Your task to perform on an android device: Set the phone to "Do not disturb". Image 0: 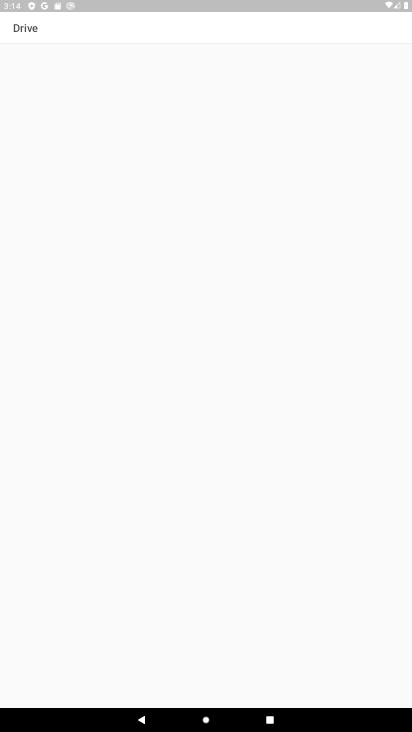
Step 0: drag from (175, 25) to (165, 700)
Your task to perform on an android device: Set the phone to "Do not disturb". Image 1: 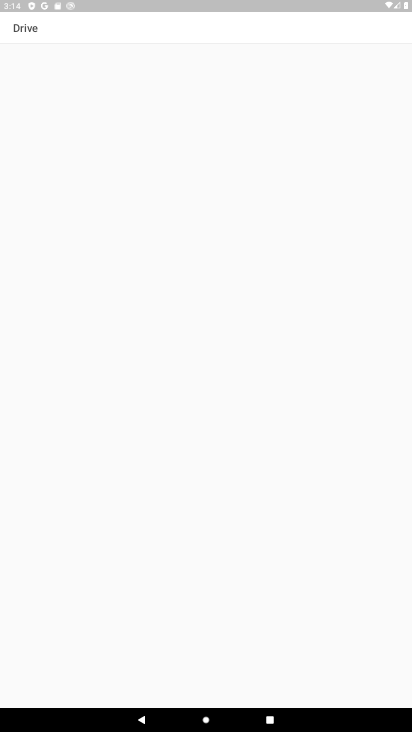
Step 1: press home button
Your task to perform on an android device: Set the phone to "Do not disturb". Image 2: 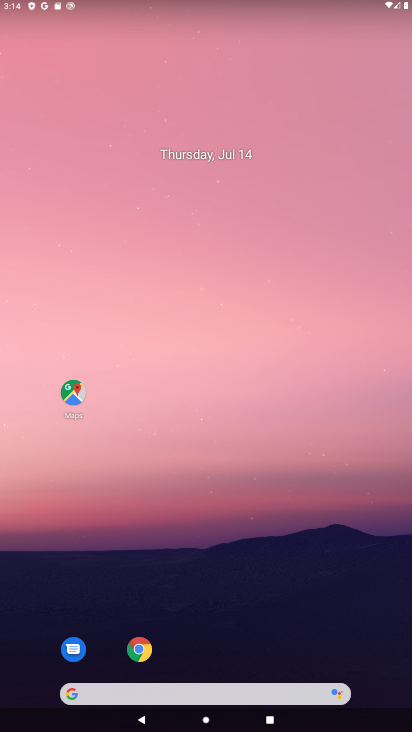
Step 2: click (153, 483)
Your task to perform on an android device: Set the phone to "Do not disturb". Image 3: 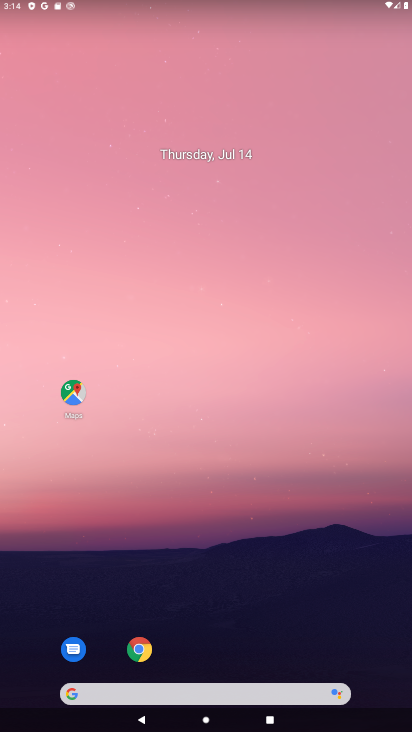
Step 3: drag from (142, 0) to (139, 55)
Your task to perform on an android device: Set the phone to "Do not disturb". Image 4: 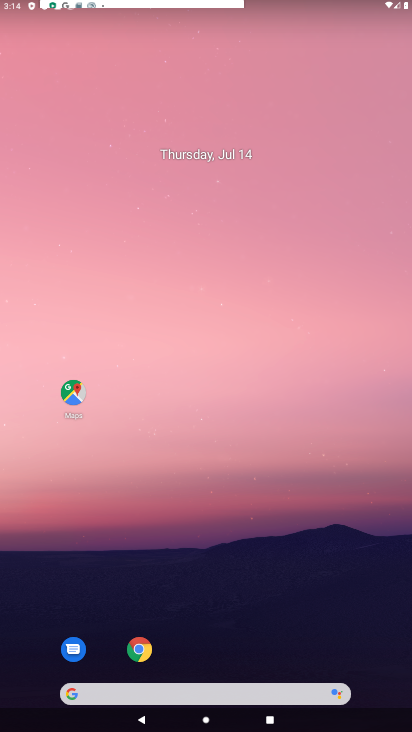
Step 4: drag from (138, 7) to (141, 465)
Your task to perform on an android device: Set the phone to "Do not disturb". Image 5: 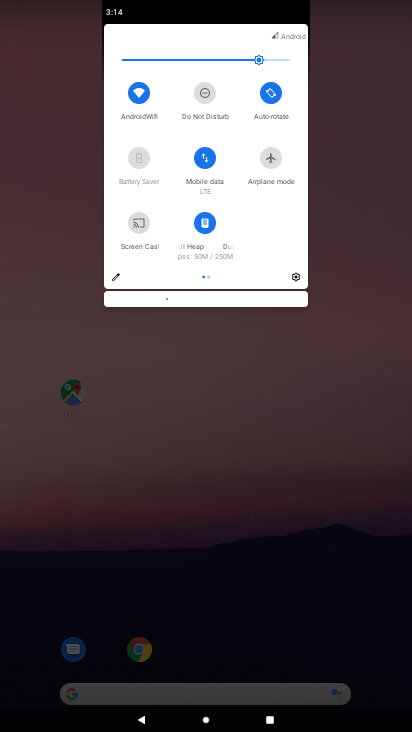
Step 5: click (196, 101)
Your task to perform on an android device: Set the phone to "Do not disturb". Image 6: 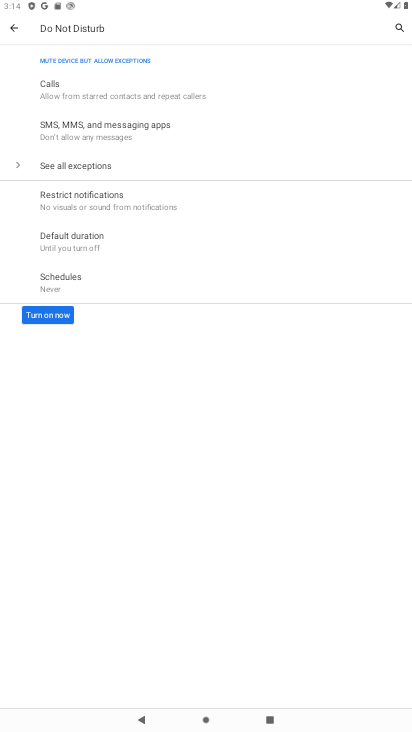
Step 6: click (55, 316)
Your task to perform on an android device: Set the phone to "Do not disturb". Image 7: 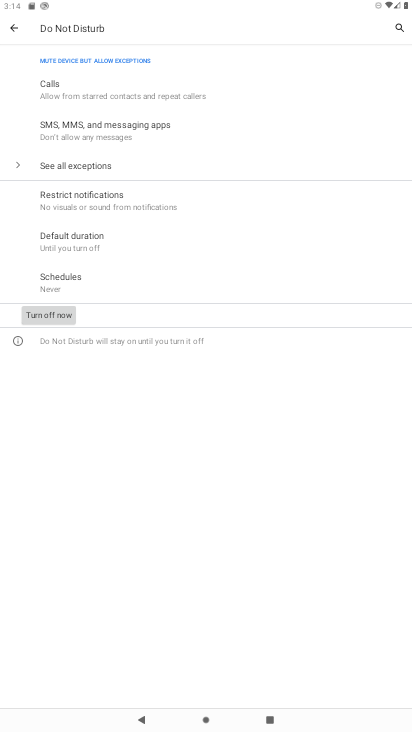
Step 7: task complete